Your task to perform on an android device: Go to accessibility settings Image 0: 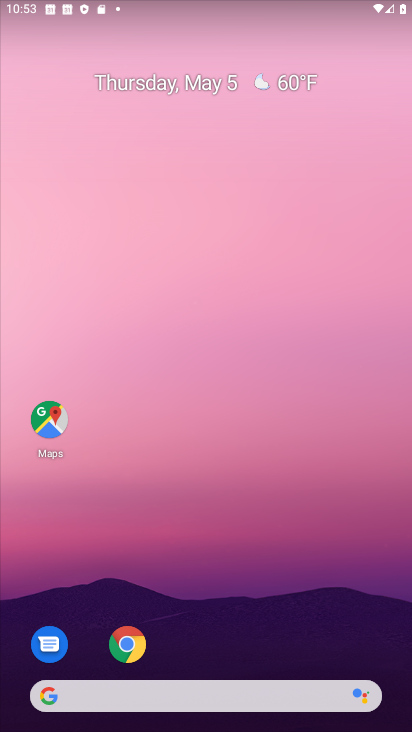
Step 0: drag from (197, 519) to (193, 385)
Your task to perform on an android device: Go to accessibility settings Image 1: 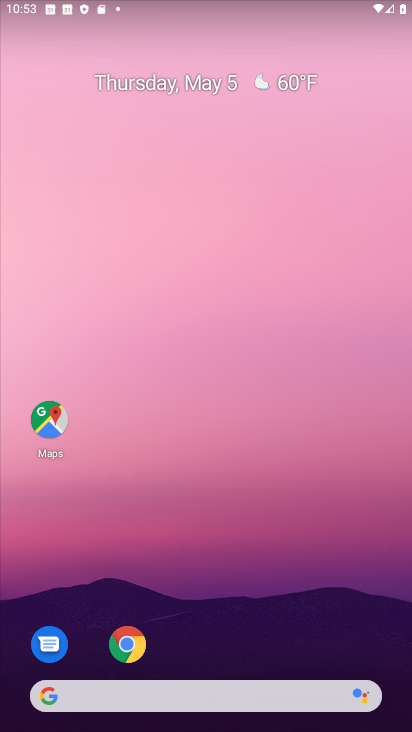
Step 1: drag from (200, 618) to (211, 418)
Your task to perform on an android device: Go to accessibility settings Image 2: 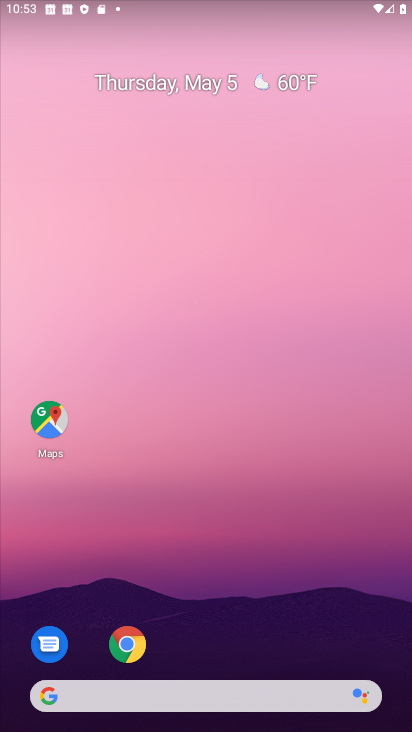
Step 2: drag from (151, 654) to (252, 83)
Your task to perform on an android device: Go to accessibility settings Image 3: 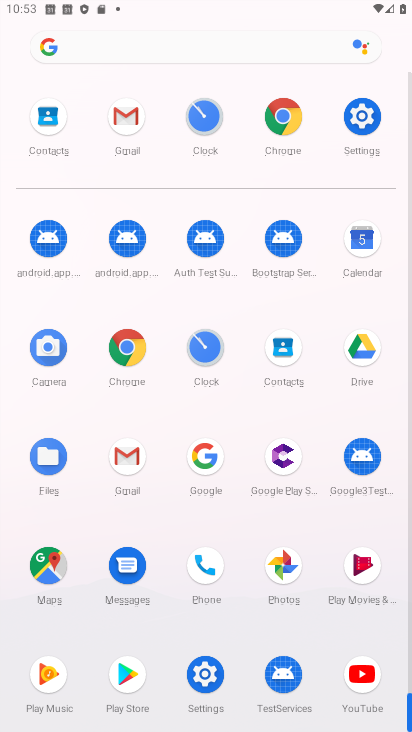
Step 3: drag from (150, 701) to (230, 171)
Your task to perform on an android device: Go to accessibility settings Image 4: 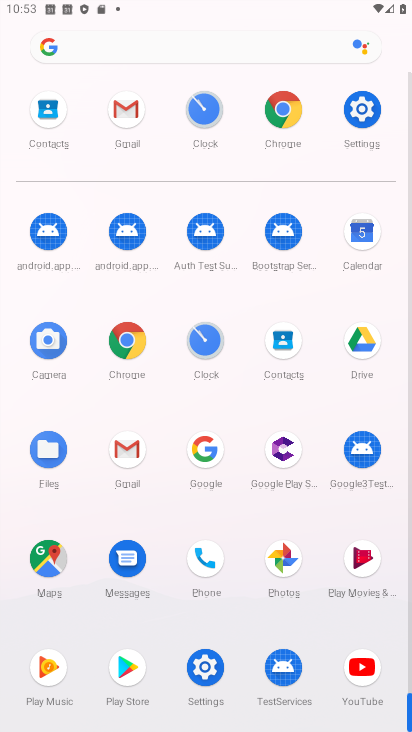
Step 4: click (194, 651)
Your task to perform on an android device: Go to accessibility settings Image 5: 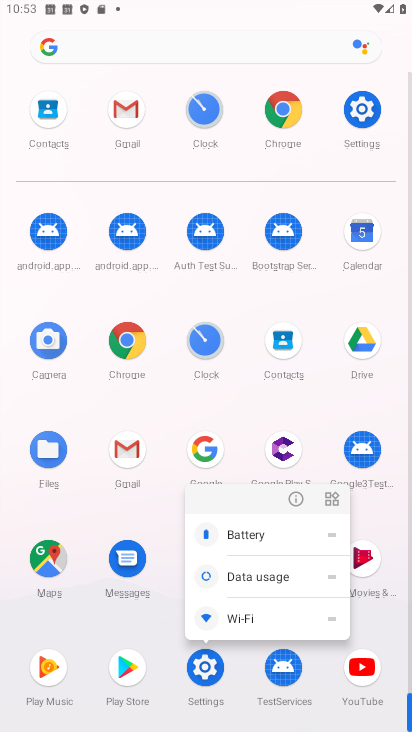
Step 5: click (291, 494)
Your task to perform on an android device: Go to accessibility settings Image 6: 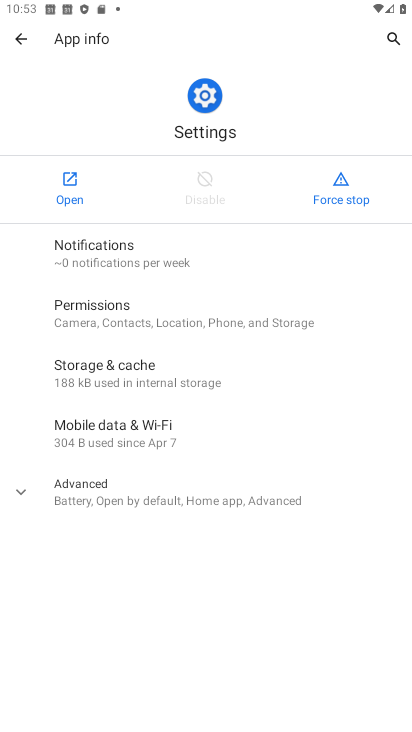
Step 6: click (58, 177)
Your task to perform on an android device: Go to accessibility settings Image 7: 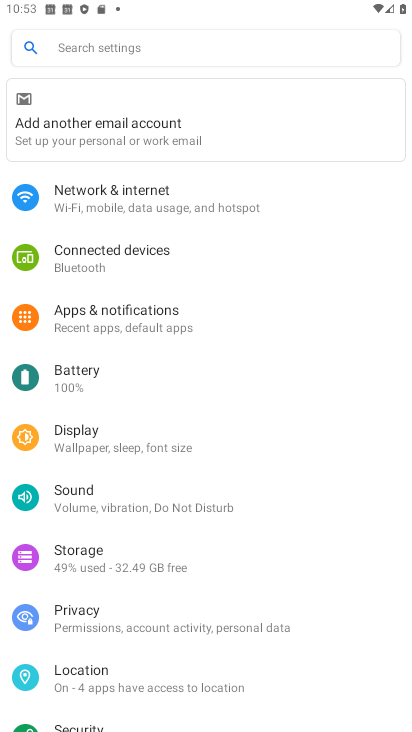
Step 7: drag from (154, 427) to (195, 237)
Your task to perform on an android device: Go to accessibility settings Image 8: 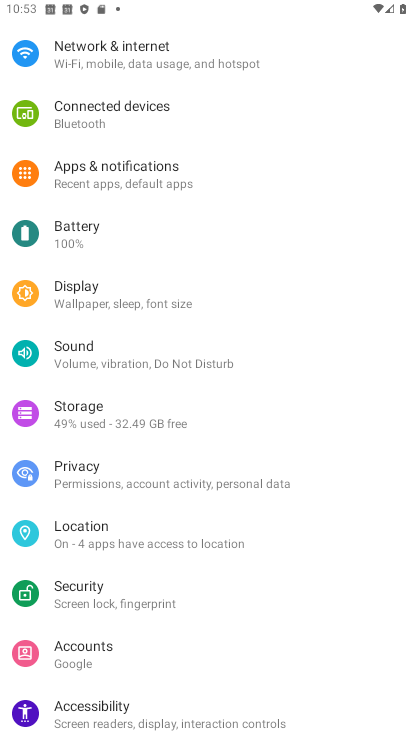
Step 8: drag from (146, 530) to (202, 341)
Your task to perform on an android device: Go to accessibility settings Image 9: 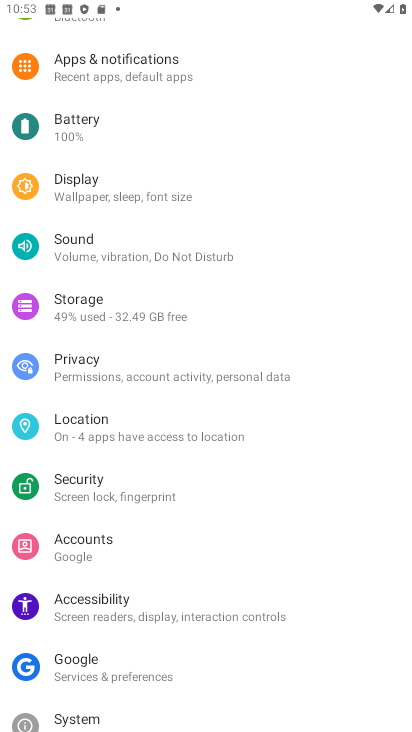
Step 9: drag from (145, 621) to (236, 280)
Your task to perform on an android device: Go to accessibility settings Image 10: 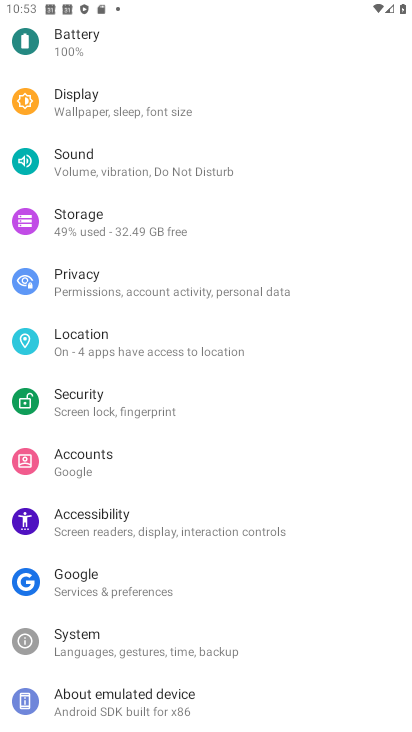
Step 10: click (131, 535)
Your task to perform on an android device: Go to accessibility settings Image 11: 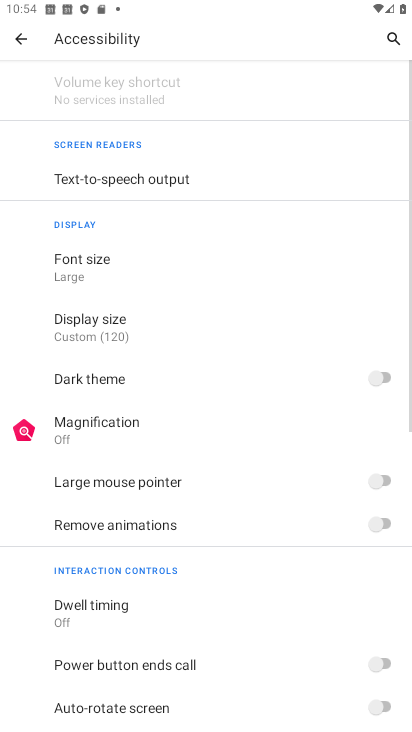
Step 11: task complete